Your task to perform on an android device: turn off translation in the chrome app Image 0: 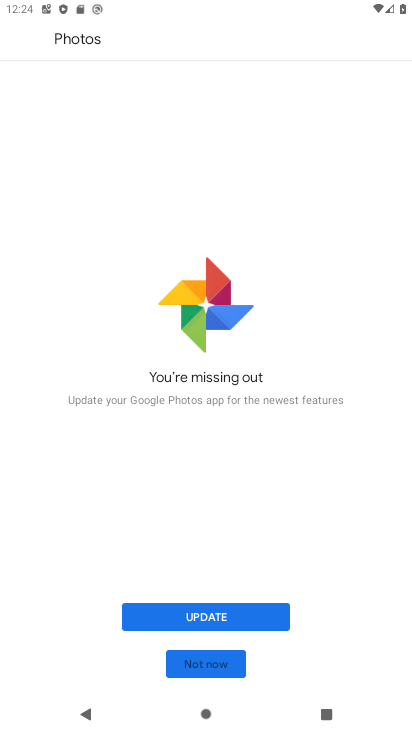
Step 0: press home button
Your task to perform on an android device: turn off translation in the chrome app Image 1: 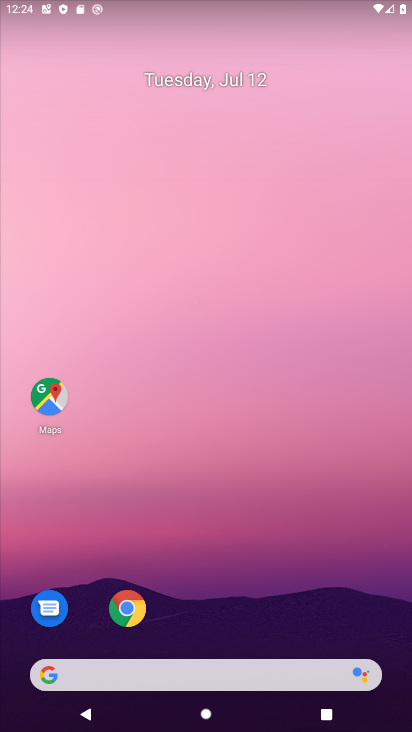
Step 1: click (129, 604)
Your task to perform on an android device: turn off translation in the chrome app Image 2: 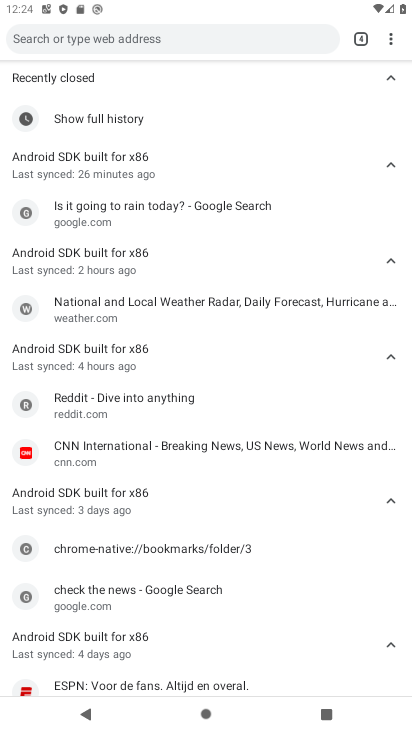
Step 2: click (392, 36)
Your task to perform on an android device: turn off translation in the chrome app Image 3: 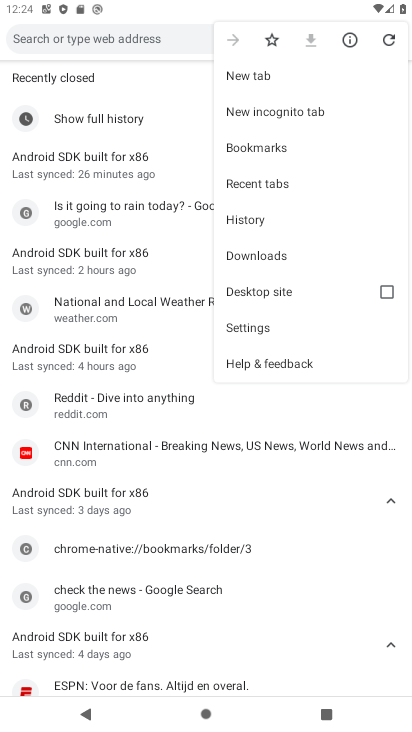
Step 3: click (268, 327)
Your task to perform on an android device: turn off translation in the chrome app Image 4: 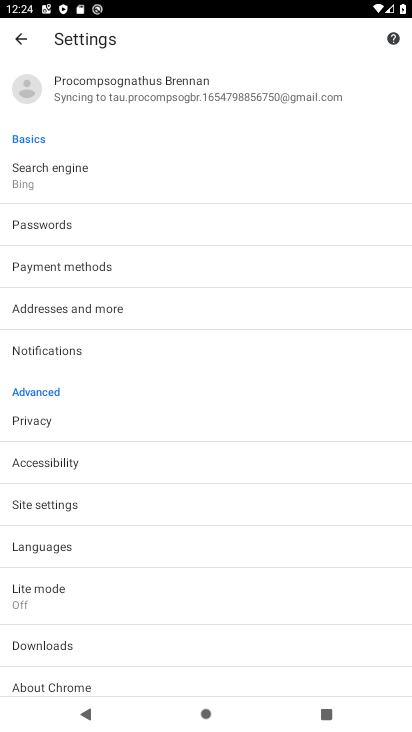
Step 4: click (106, 557)
Your task to perform on an android device: turn off translation in the chrome app Image 5: 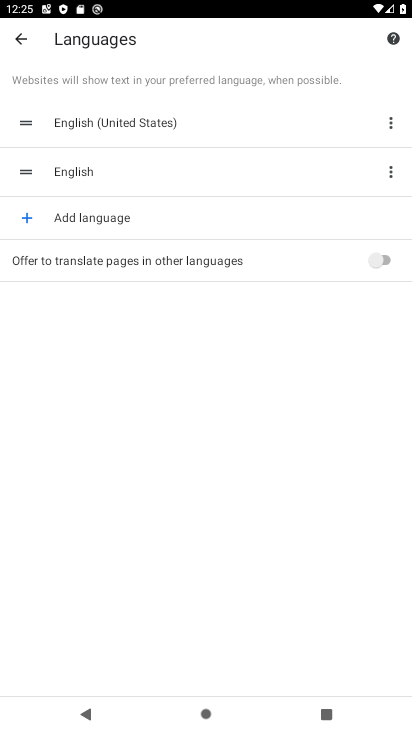
Step 5: task complete